Your task to perform on an android device: Go to calendar. Show me events next week Image 0: 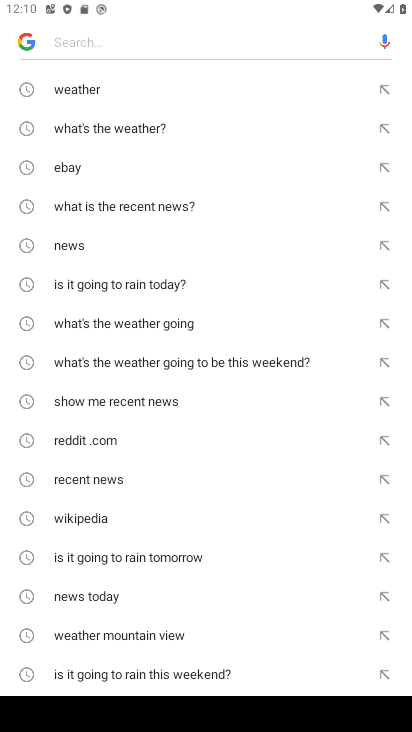
Step 0: press home button
Your task to perform on an android device: Go to calendar. Show me events next week Image 1: 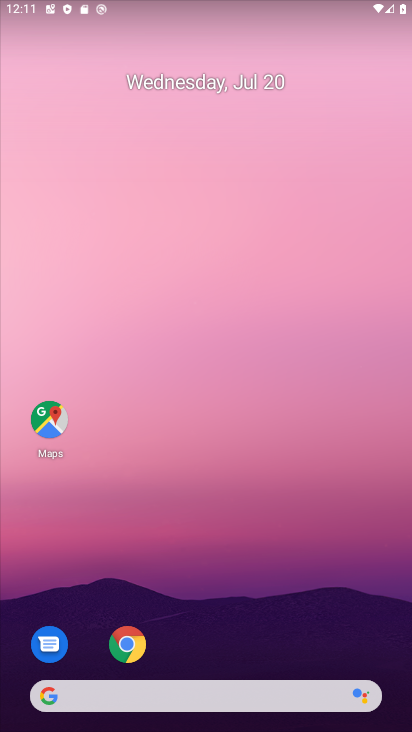
Step 1: drag from (273, 670) to (328, 129)
Your task to perform on an android device: Go to calendar. Show me events next week Image 2: 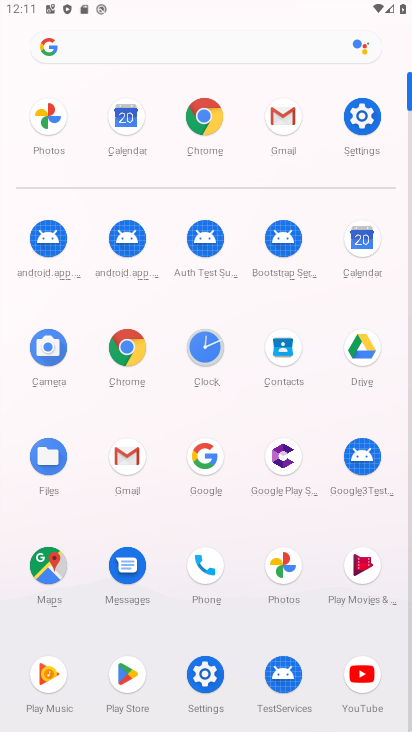
Step 2: click (352, 232)
Your task to perform on an android device: Go to calendar. Show me events next week Image 3: 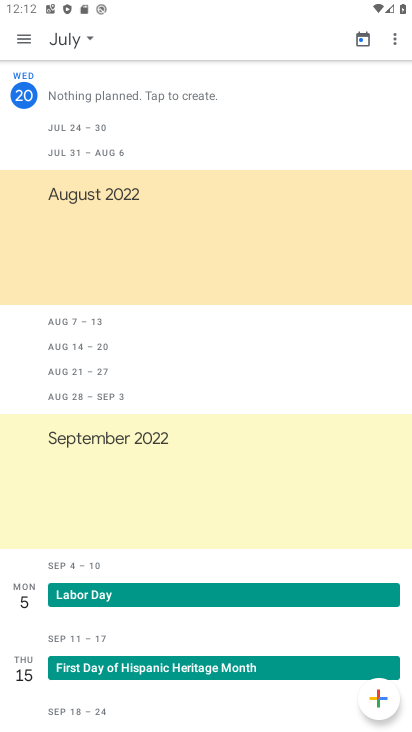
Step 3: click (82, 44)
Your task to perform on an android device: Go to calendar. Show me events next week Image 4: 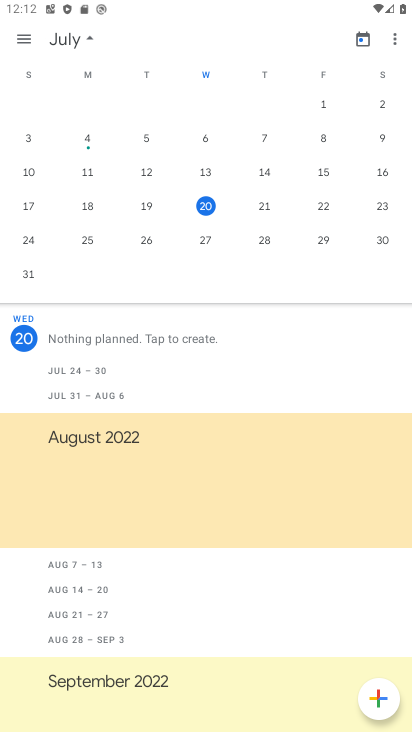
Step 4: click (223, 241)
Your task to perform on an android device: Go to calendar. Show me events next week Image 5: 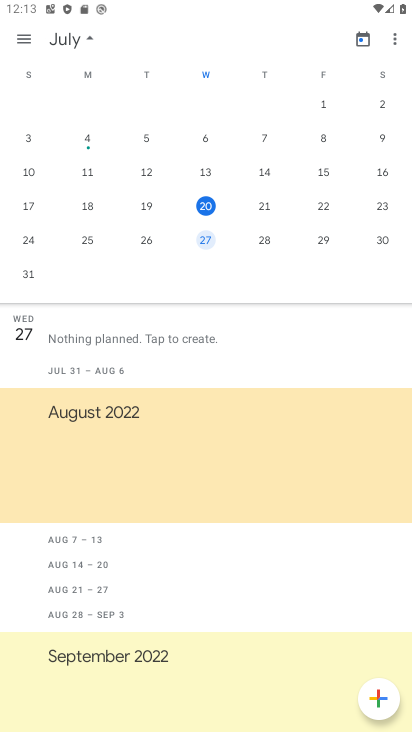
Step 5: task complete